Your task to perform on an android device: Go to Yahoo.com Image 0: 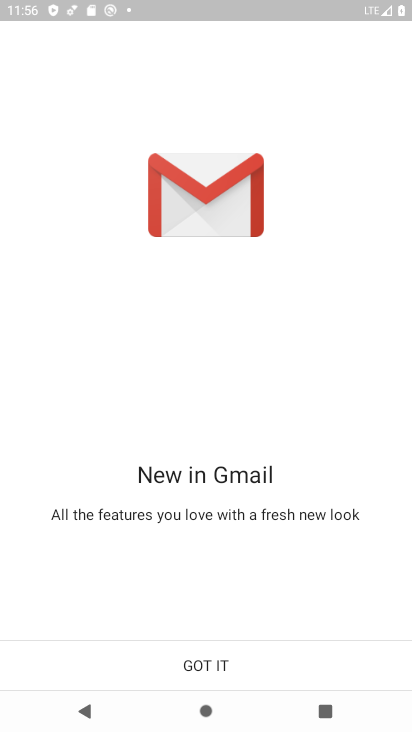
Step 0: press home button
Your task to perform on an android device: Go to Yahoo.com Image 1: 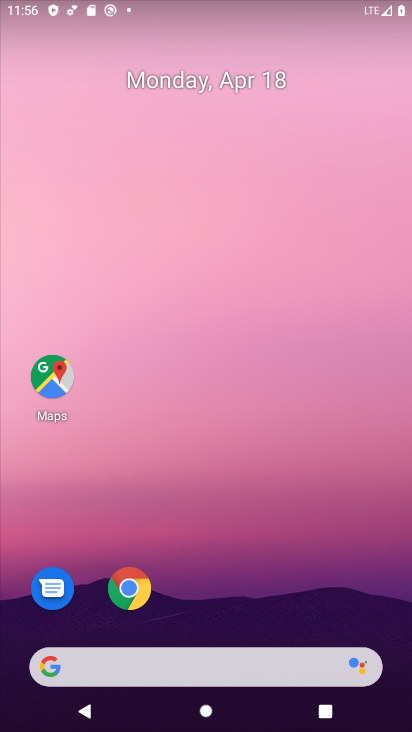
Step 1: click (130, 587)
Your task to perform on an android device: Go to Yahoo.com Image 2: 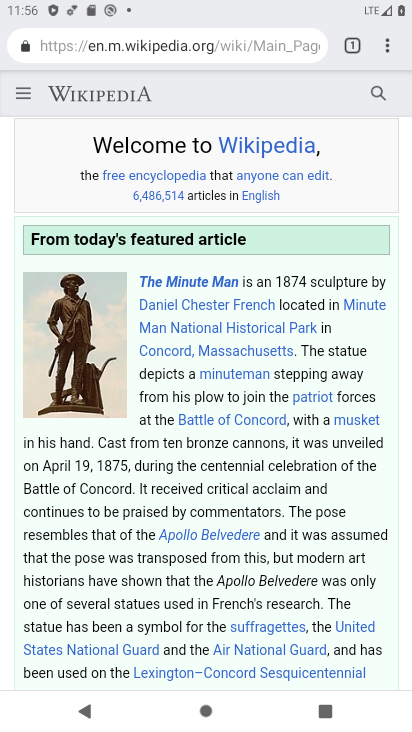
Step 2: click (133, 39)
Your task to perform on an android device: Go to Yahoo.com Image 3: 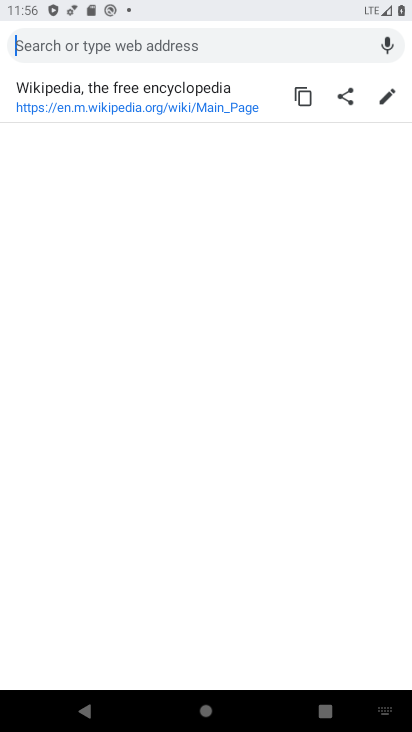
Step 3: type "yahoo.com"
Your task to perform on an android device: Go to Yahoo.com Image 4: 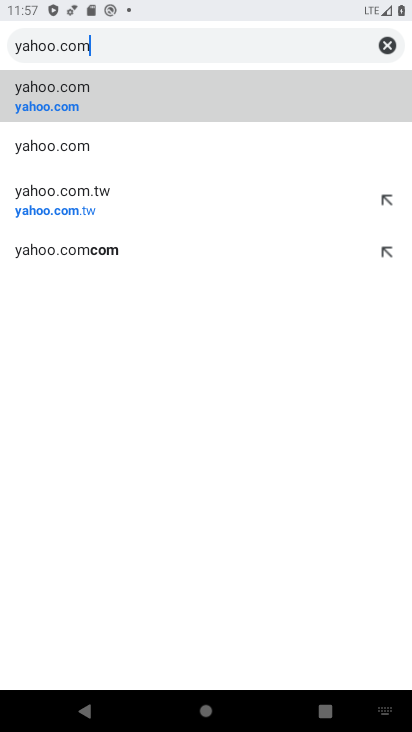
Step 4: click (73, 102)
Your task to perform on an android device: Go to Yahoo.com Image 5: 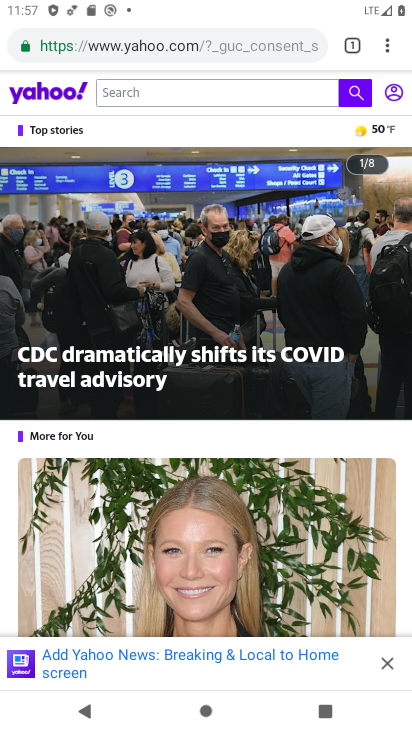
Step 5: task complete